Your task to perform on an android device: Open settings on Google Maps Image 0: 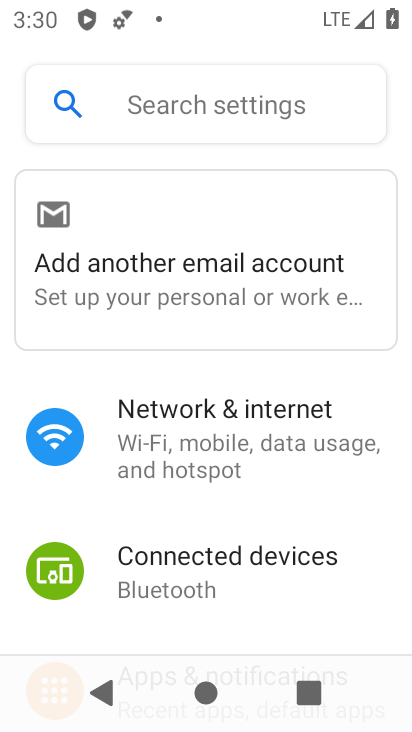
Step 0: press home button
Your task to perform on an android device: Open settings on Google Maps Image 1: 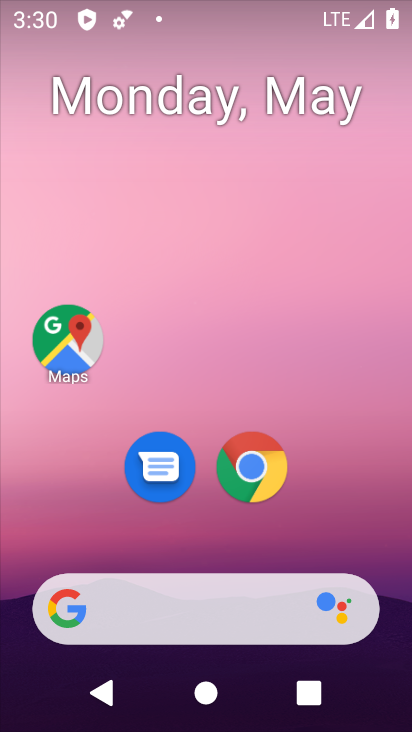
Step 1: click (53, 341)
Your task to perform on an android device: Open settings on Google Maps Image 2: 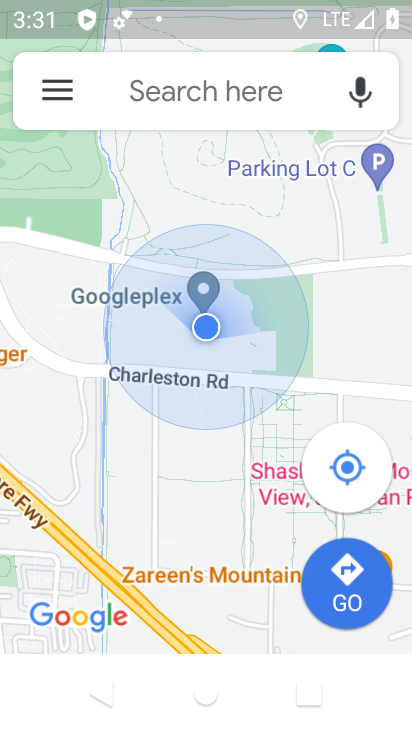
Step 2: task complete